Your task to perform on an android device: read, delete, or share a saved page in the chrome app Image 0: 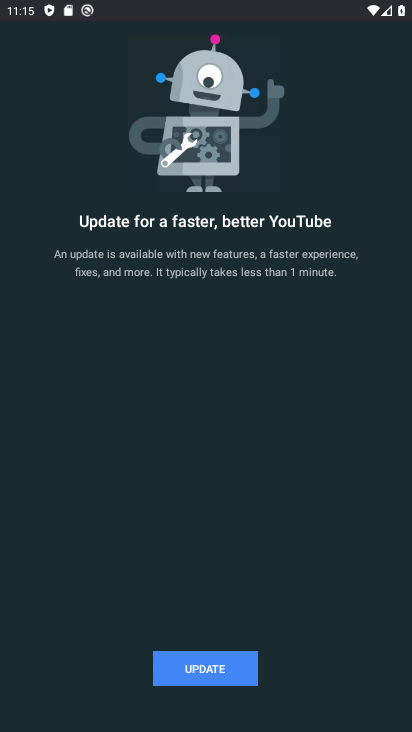
Step 0: press home button
Your task to perform on an android device: read, delete, or share a saved page in the chrome app Image 1: 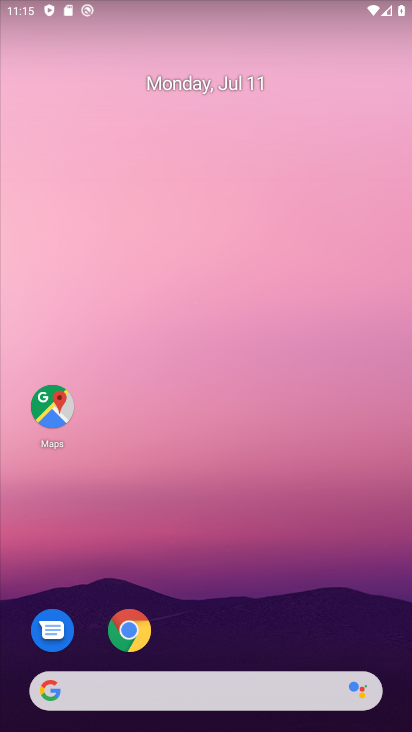
Step 1: click (129, 631)
Your task to perform on an android device: read, delete, or share a saved page in the chrome app Image 2: 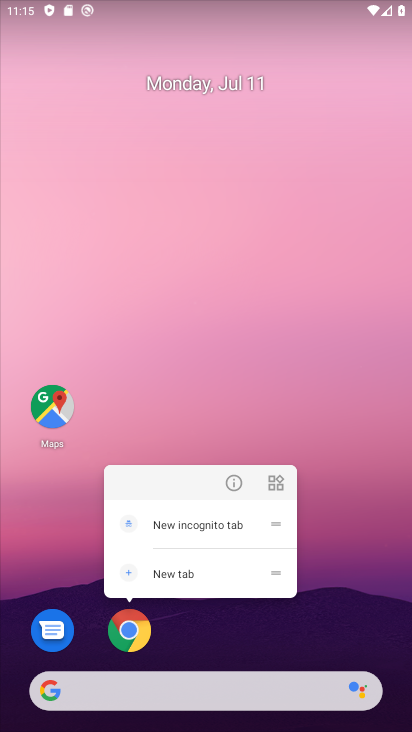
Step 2: click (136, 627)
Your task to perform on an android device: read, delete, or share a saved page in the chrome app Image 3: 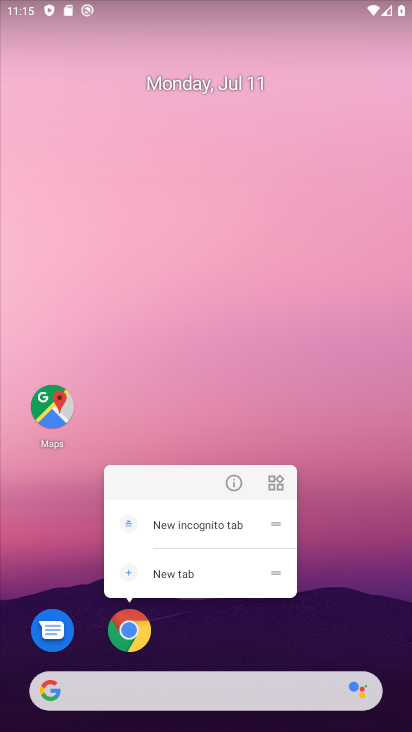
Step 3: click (128, 631)
Your task to perform on an android device: read, delete, or share a saved page in the chrome app Image 4: 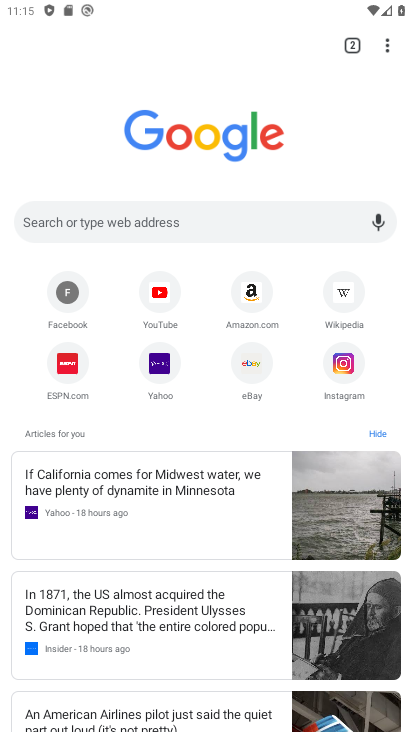
Step 4: click (385, 48)
Your task to perform on an android device: read, delete, or share a saved page in the chrome app Image 5: 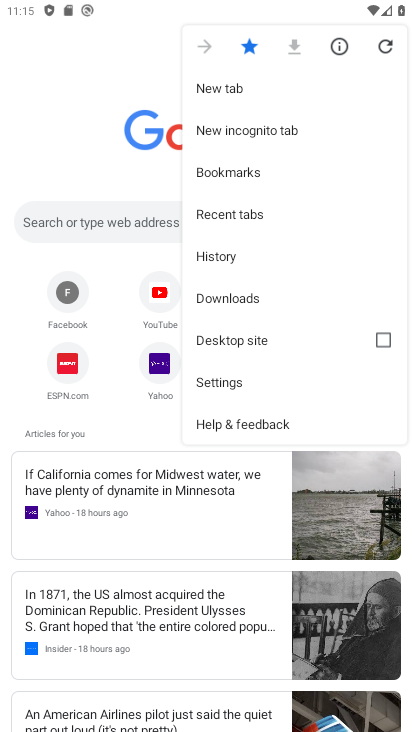
Step 5: click (234, 298)
Your task to perform on an android device: read, delete, or share a saved page in the chrome app Image 6: 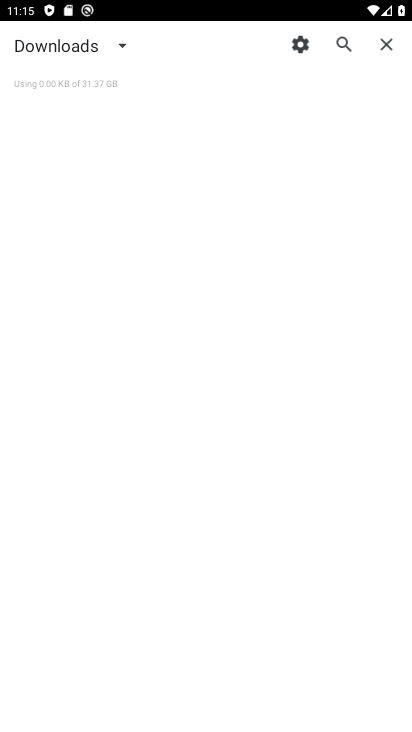
Step 6: task complete